Your task to perform on an android device: make emails show in primary in the gmail app Image 0: 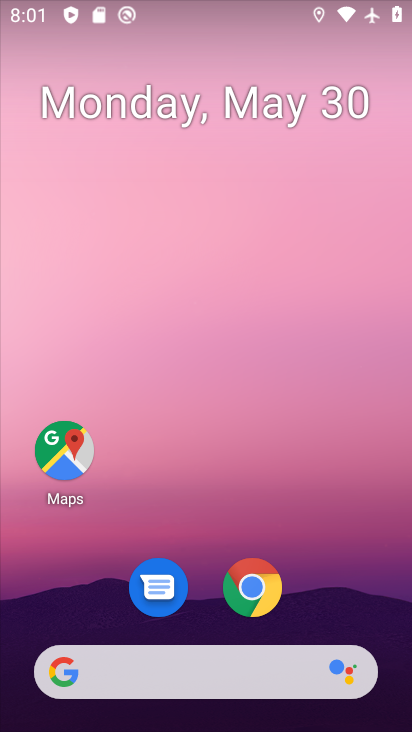
Step 0: press home button
Your task to perform on an android device: make emails show in primary in the gmail app Image 1: 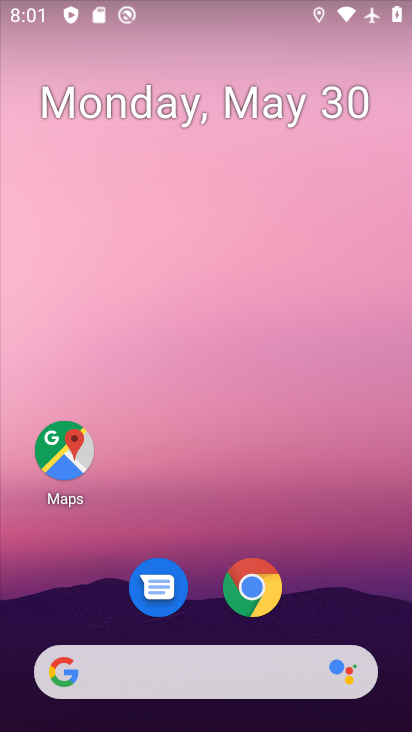
Step 1: drag from (147, 674) to (409, 101)
Your task to perform on an android device: make emails show in primary in the gmail app Image 2: 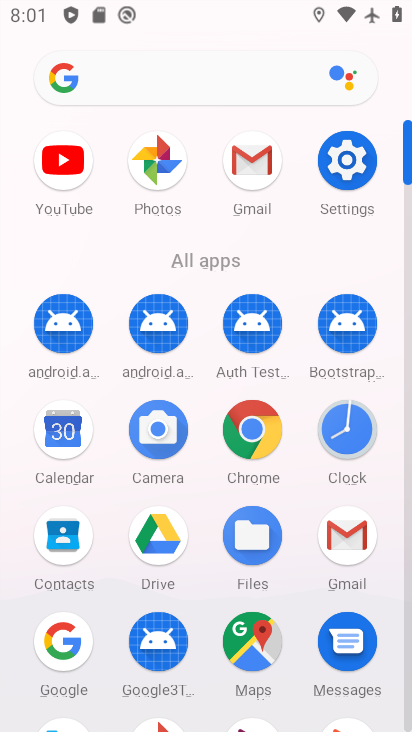
Step 2: click (261, 163)
Your task to perform on an android device: make emails show in primary in the gmail app Image 3: 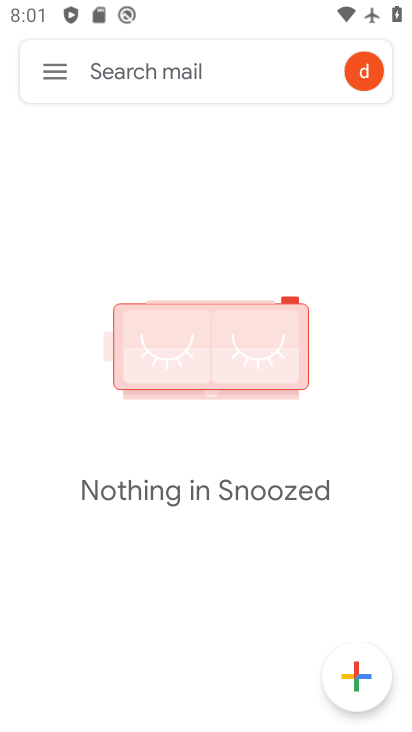
Step 3: click (59, 71)
Your task to perform on an android device: make emails show in primary in the gmail app Image 4: 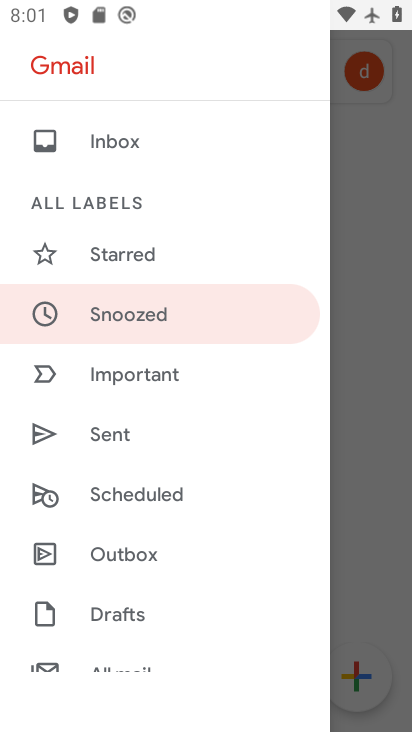
Step 4: drag from (205, 642) to (386, 154)
Your task to perform on an android device: make emails show in primary in the gmail app Image 5: 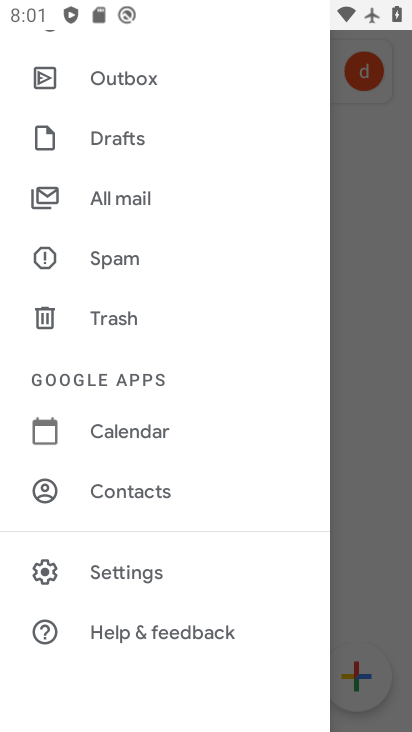
Step 5: click (126, 580)
Your task to perform on an android device: make emails show in primary in the gmail app Image 6: 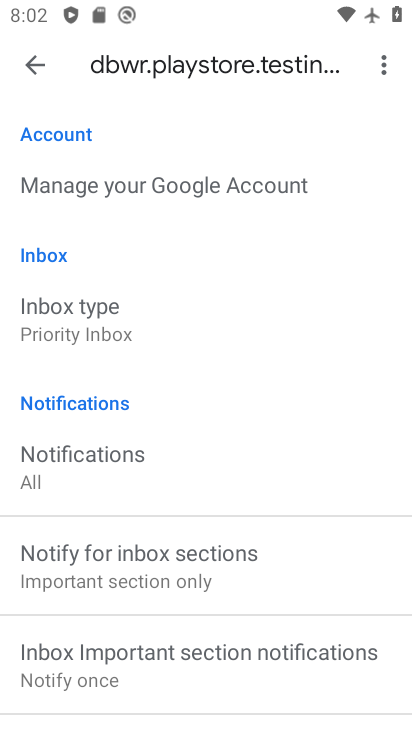
Step 6: task complete